Your task to perform on an android device: check storage Image 0: 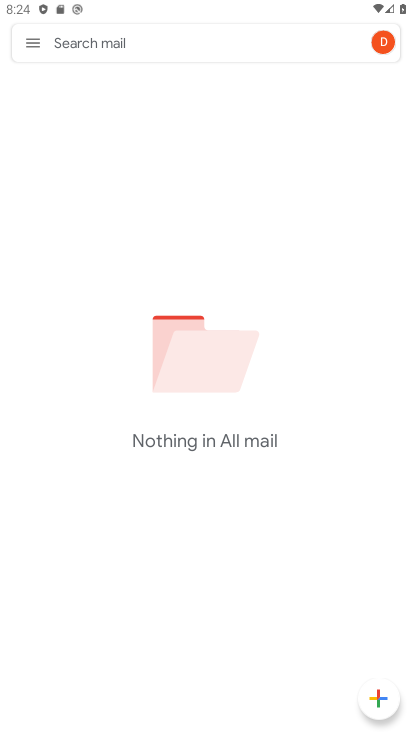
Step 0: press home button
Your task to perform on an android device: check storage Image 1: 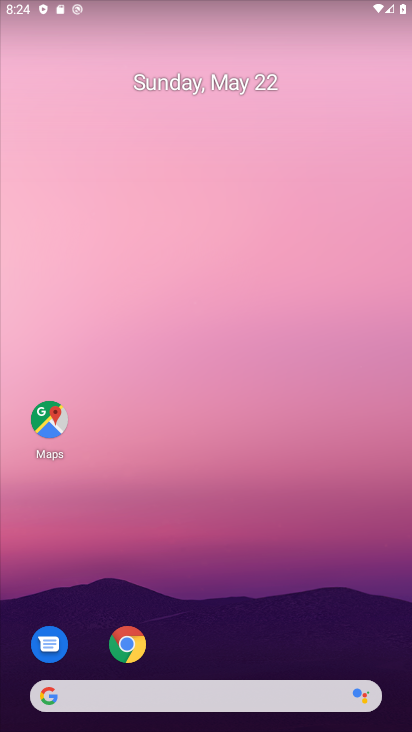
Step 1: drag from (206, 698) to (201, 242)
Your task to perform on an android device: check storage Image 2: 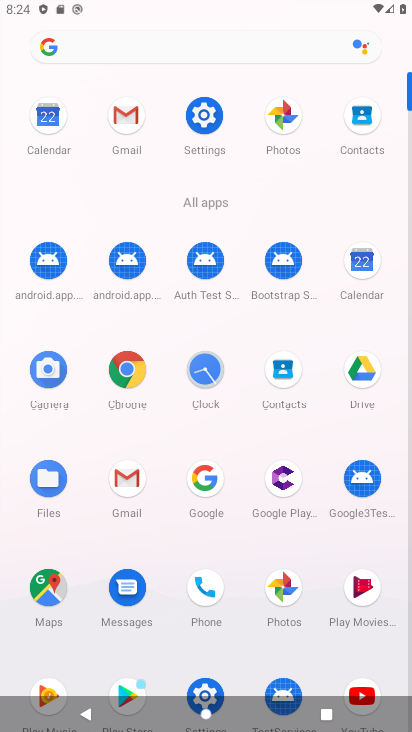
Step 2: click (188, 122)
Your task to perform on an android device: check storage Image 3: 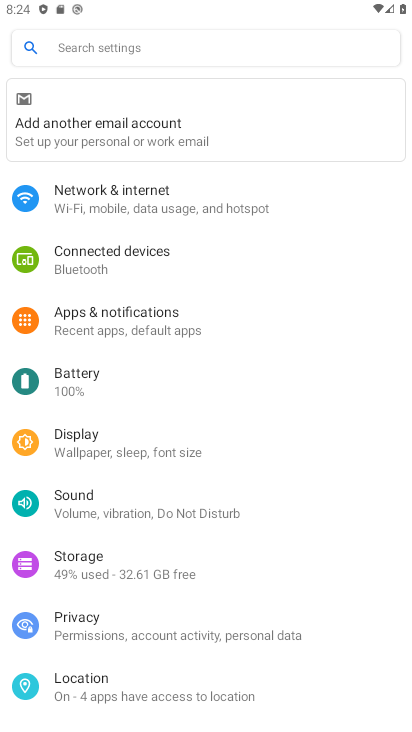
Step 3: click (139, 560)
Your task to perform on an android device: check storage Image 4: 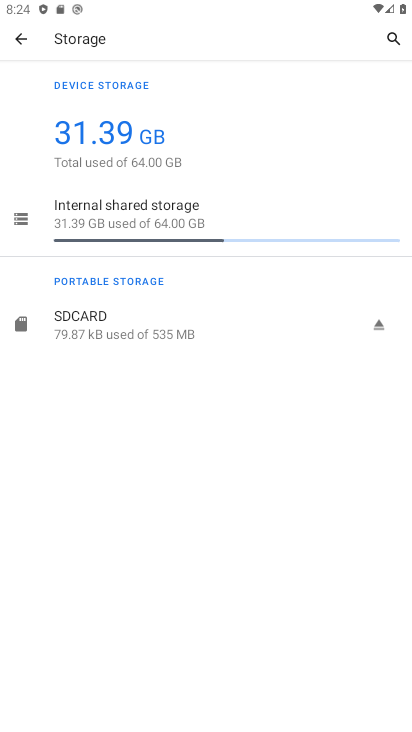
Step 4: click (270, 226)
Your task to perform on an android device: check storage Image 5: 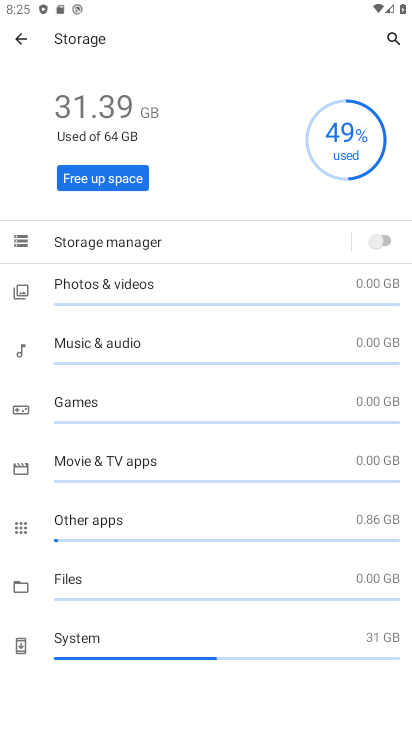
Step 5: task complete